Your task to perform on an android device: What is the recent news? Image 0: 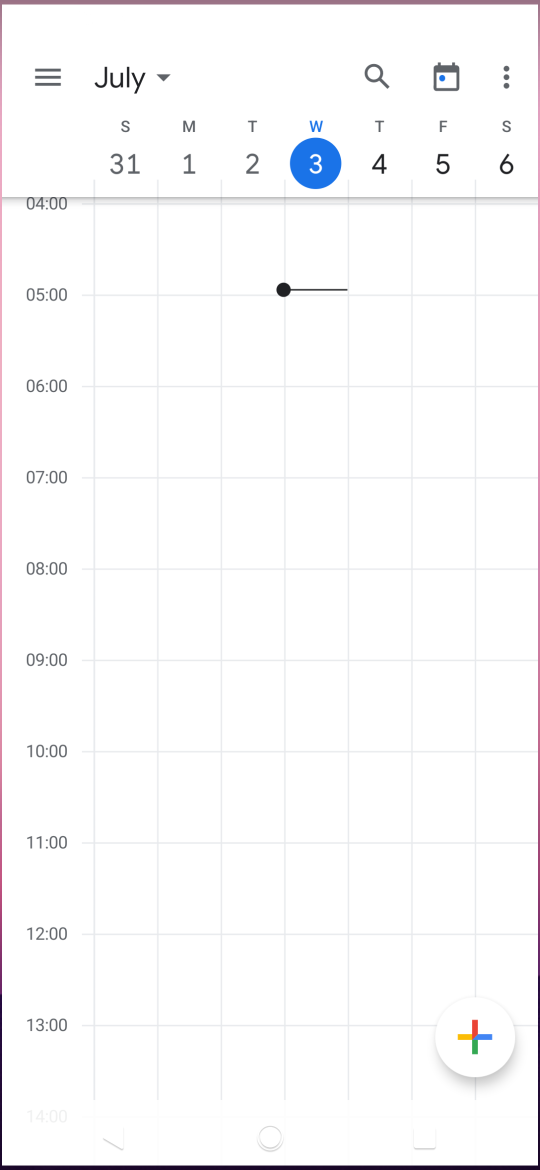
Step 0: press home button
Your task to perform on an android device: What is the recent news? Image 1: 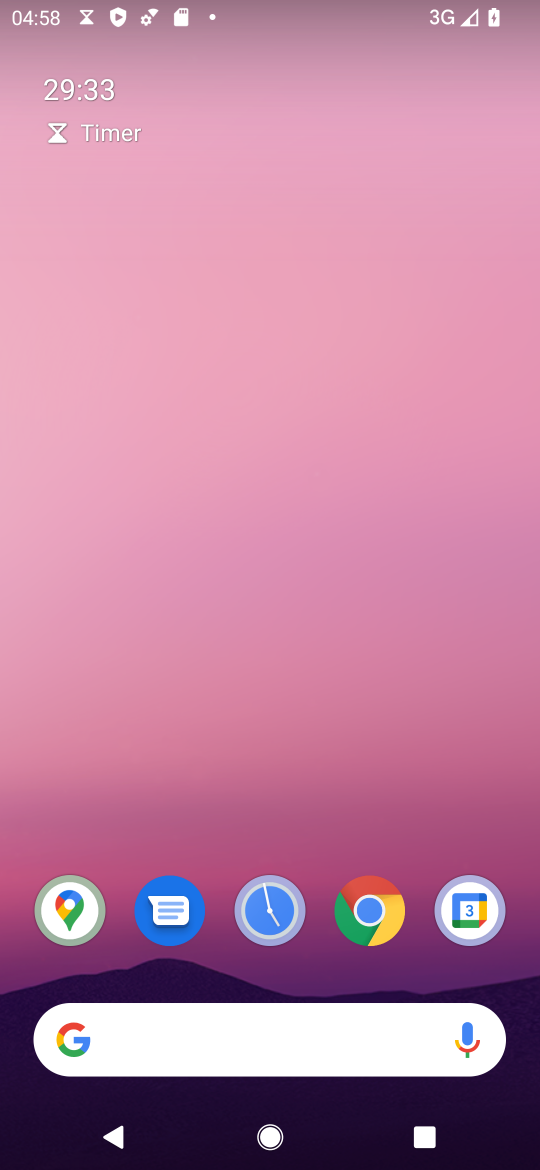
Step 1: task complete